Your task to perform on an android device: Open the stopwatch Image 0: 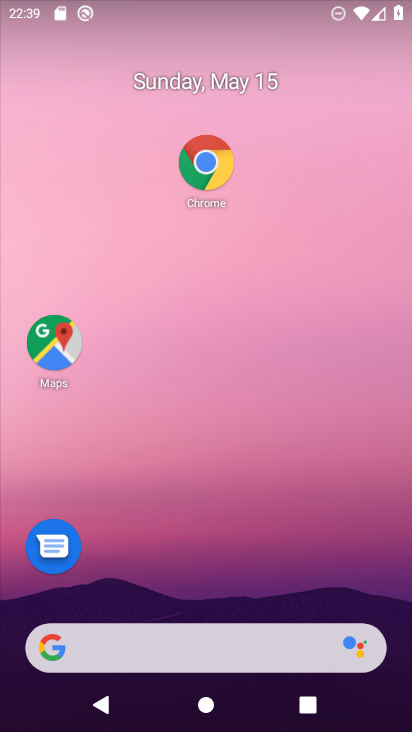
Step 0: drag from (328, 551) to (346, 251)
Your task to perform on an android device: Open the stopwatch Image 1: 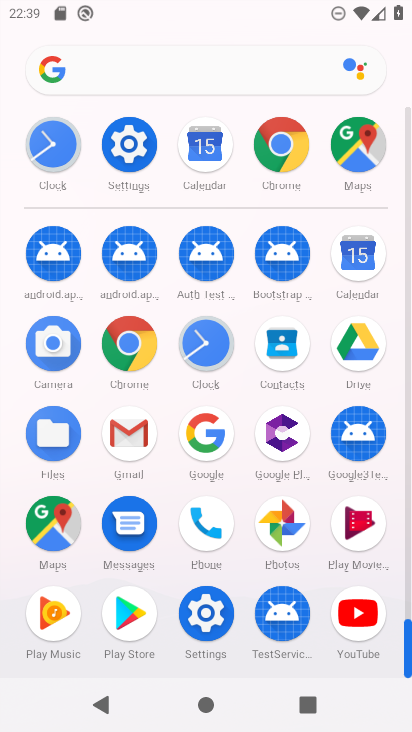
Step 1: click (359, 244)
Your task to perform on an android device: Open the stopwatch Image 2: 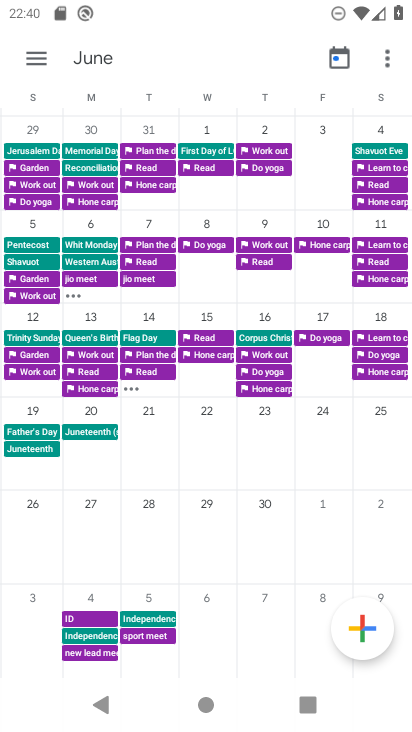
Step 2: press home button
Your task to perform on an android device: Open the stopwatch Image 3: 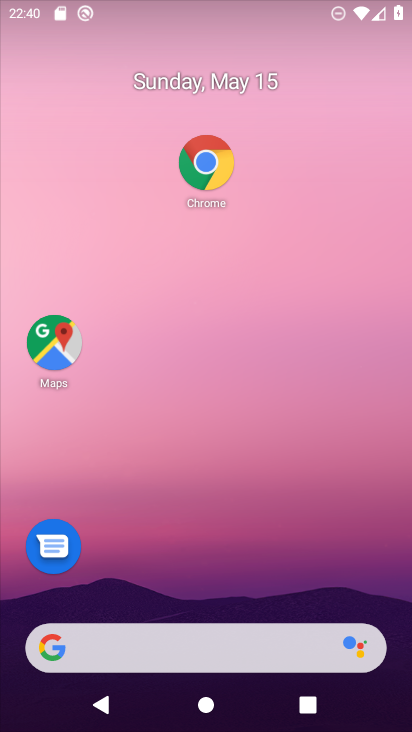
Step 3: drag from (240, 560) to (295, 231)
Your task to perform on an android device: Open the stopwatch Image 4: 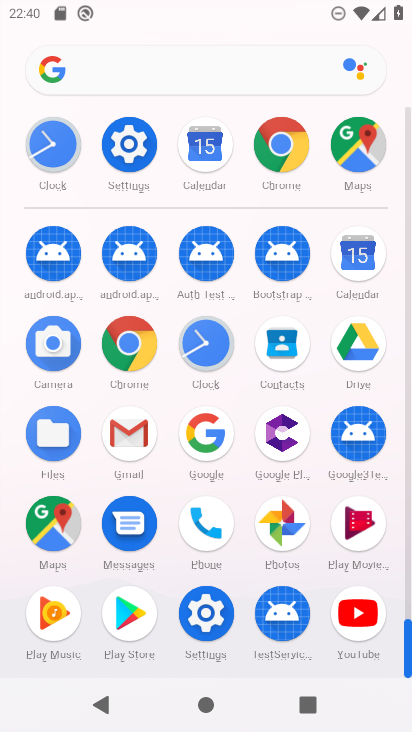
Step 4: click (193, 346)
Your task to perform on an android device: Open the stopwatch Image 5: 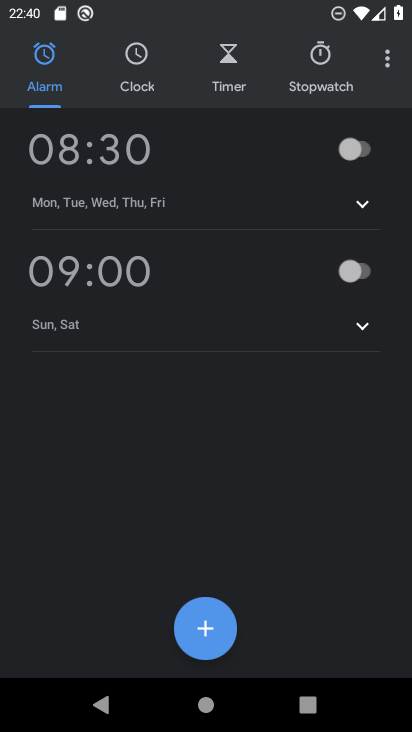
Step 5: click (302, 65)
Your task to perform on an android device: Open the stopwatch Image 6: 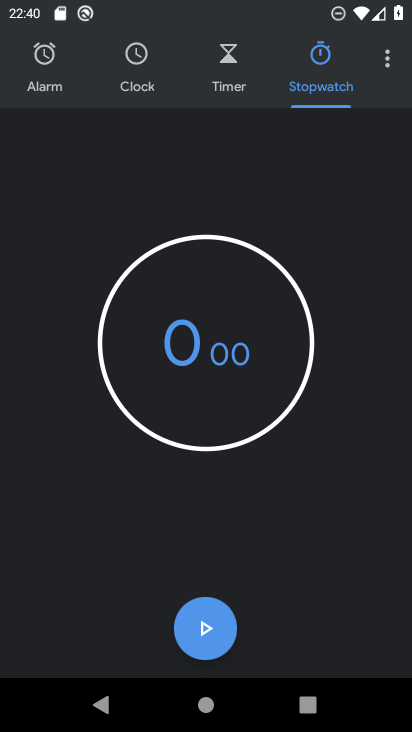
Step 6: task complete